Your task to perform on an android device: manage bookmarks in the chrome app Image 0: 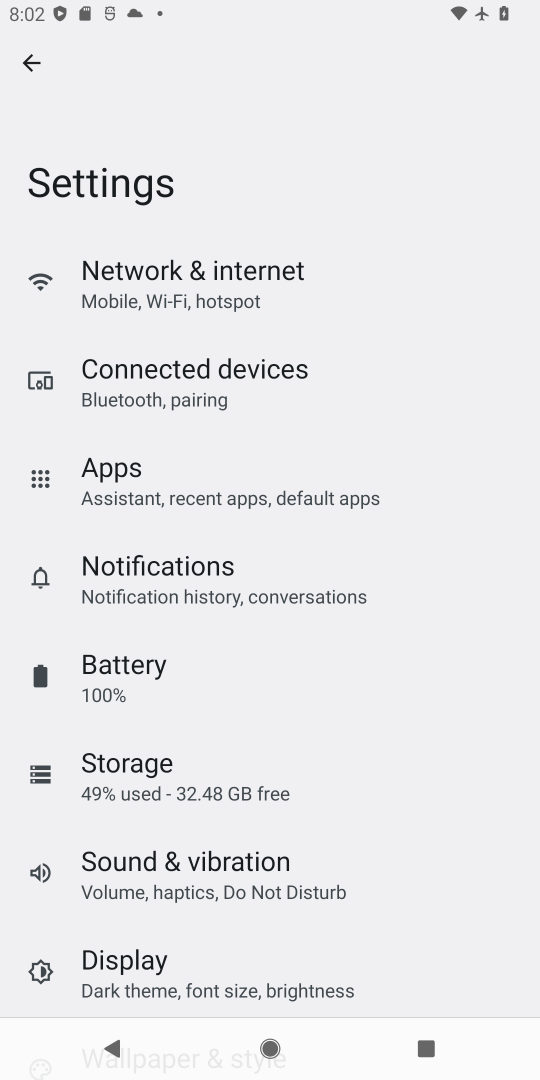
Step 0: press home button
Your task to perform on an android device: manage bookmarks in the chrome app Image 1: 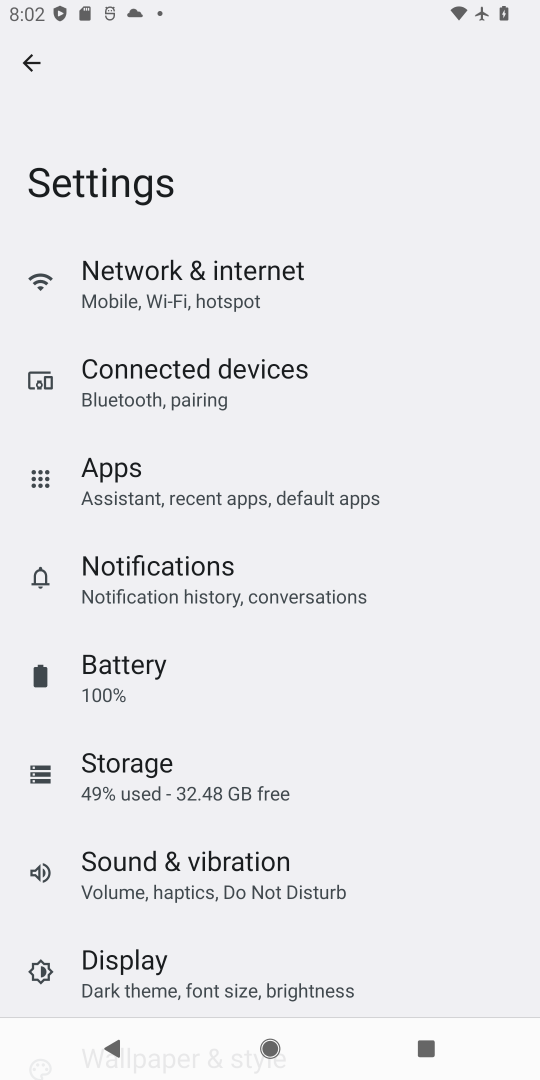
Step 1: press home button
Your task to perform on an android device: manage bookmarks in the chrome app Image 2: 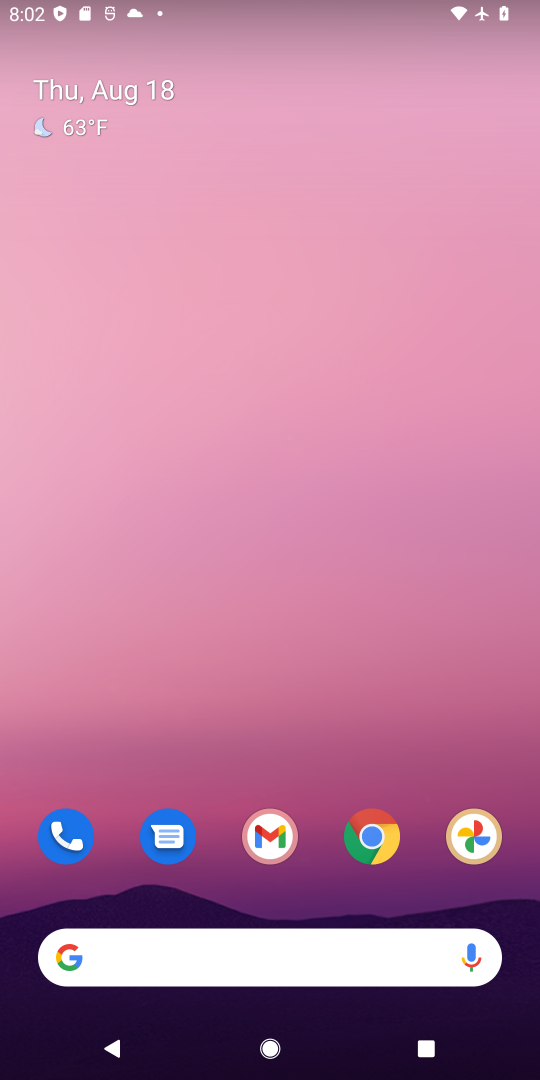
Step 2: drag from (307, 740) to (301, 4)
Your task to perform on an android device: manage bookmarks in the chrome app Image 3: 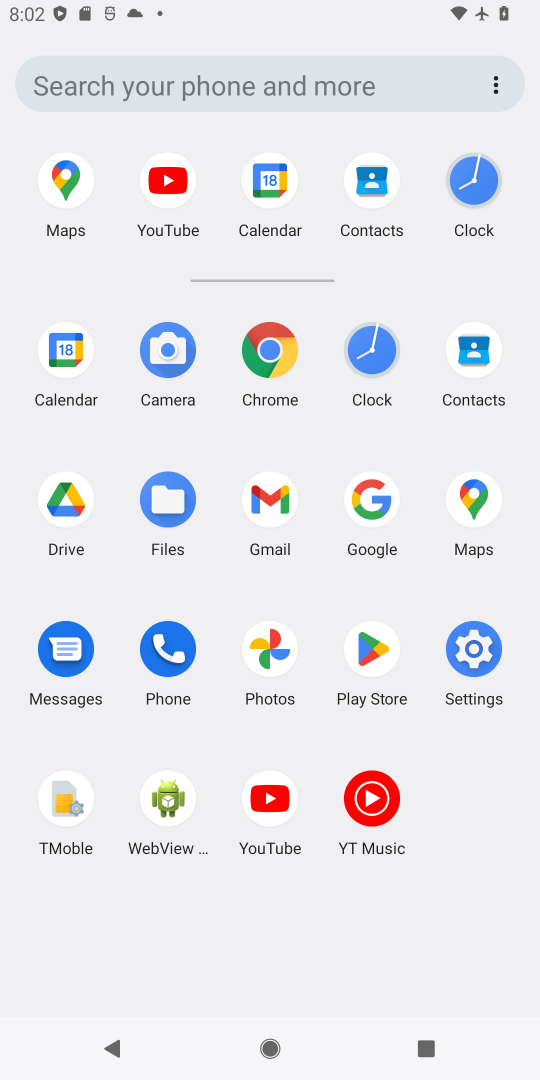
Step 3: click (268, 351)
Your task to perform on an android device: manage bookmarks in the chrome app Image 4: 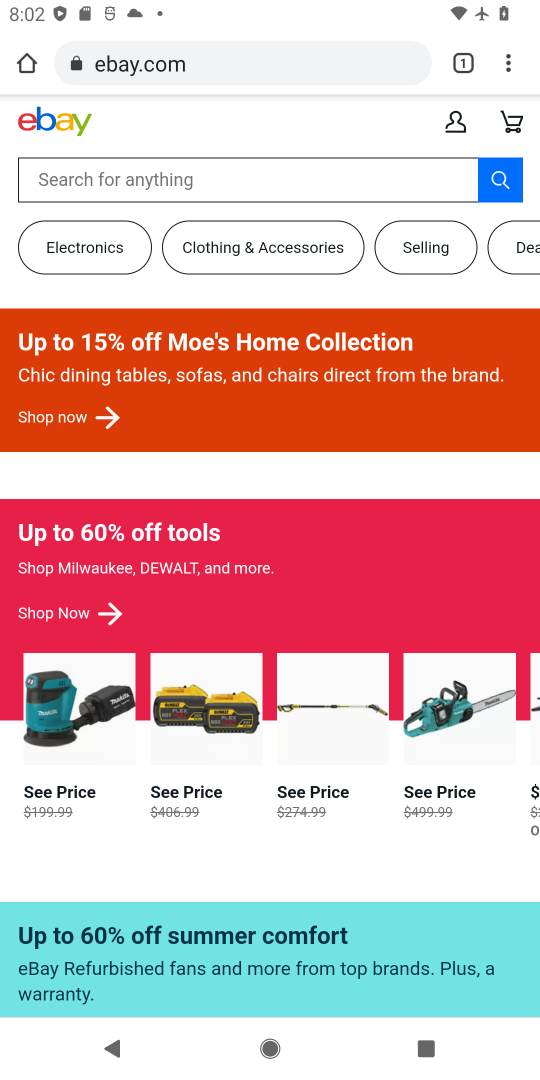
Step 4: drag from (509, 64) to (341, 434)
Your task to perform on an android device: manage bookmarks in the chrome app Image 5: 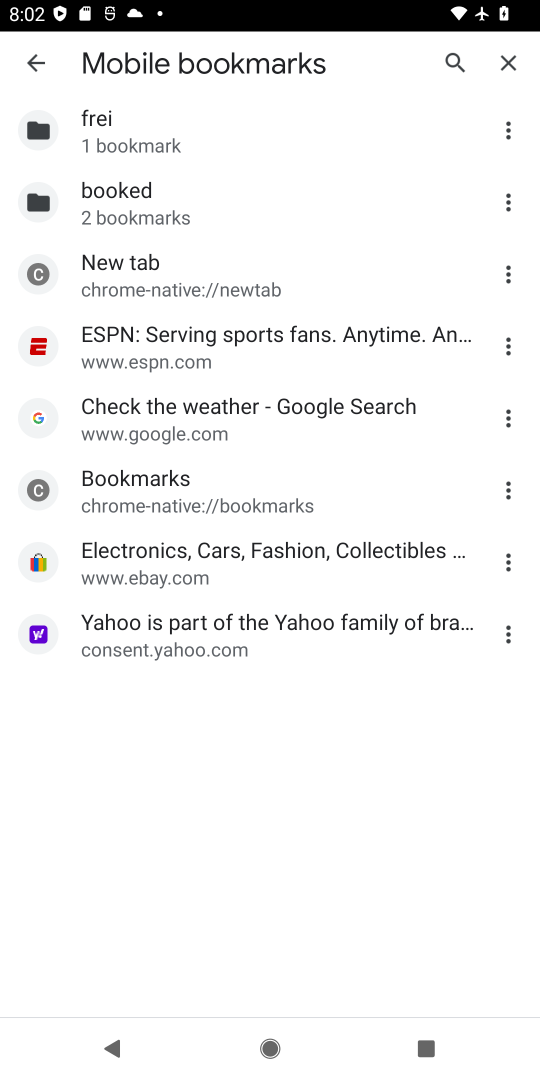
Step 5: click (509, 349)
Your task to perform on an android device: manage bookmarks in the chrome app Image 6: 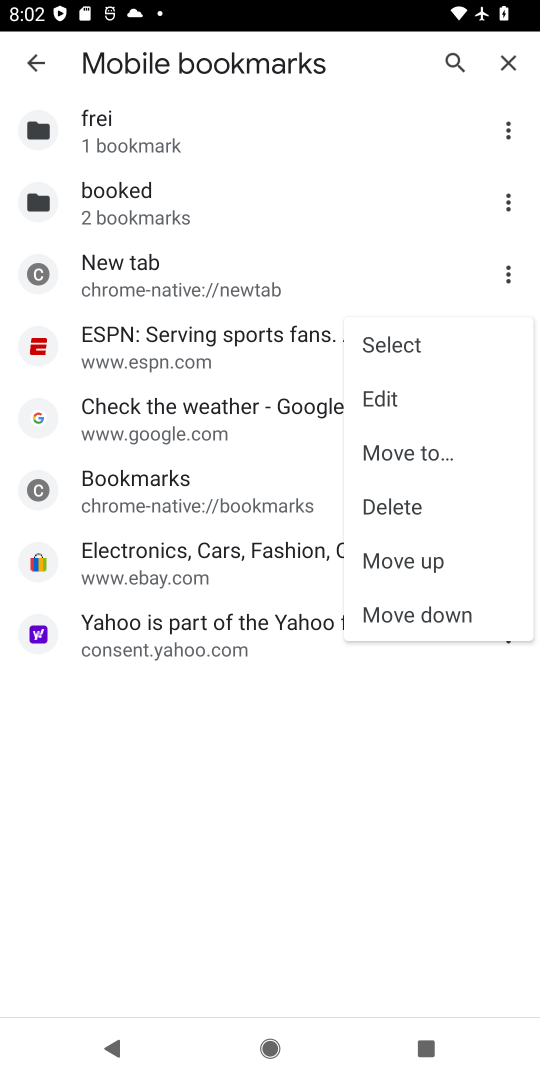
Step 6: click (393, 391)
Your task to perform on an android device: manage bookmarks in the chrome app Image 7: 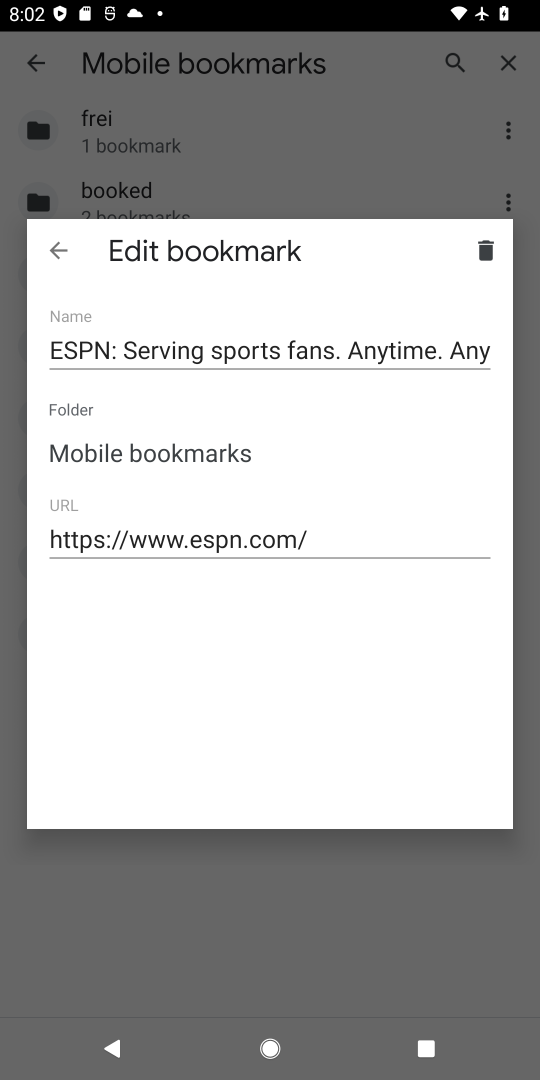
Step 7: click (169, 342)
Your task to perform on an android device: manage bookmarks in the chrome app Image 8: 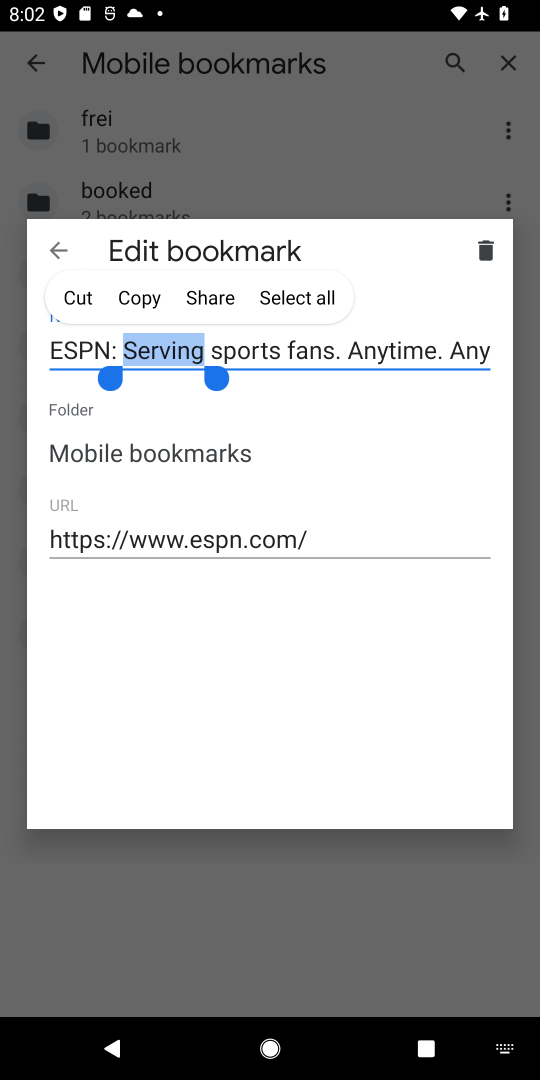
Step 8: click (81, 296)
Your task to perform on an android device: manage bookmarks in the chrome app Image 9: 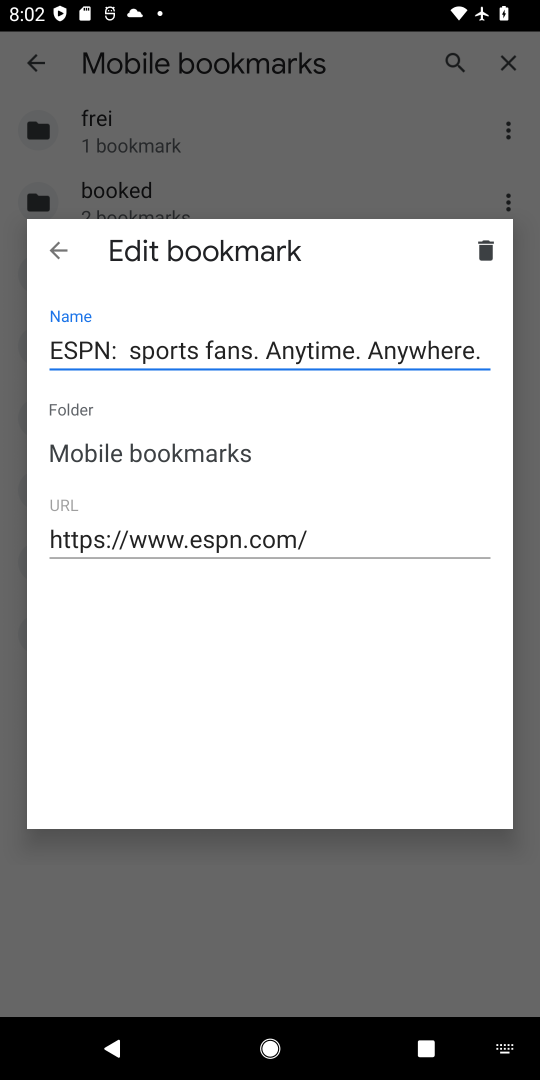
Step 9: click (50, 245)
Your task to perform on an android device: manage bookmarks in the chrome app Image 10: 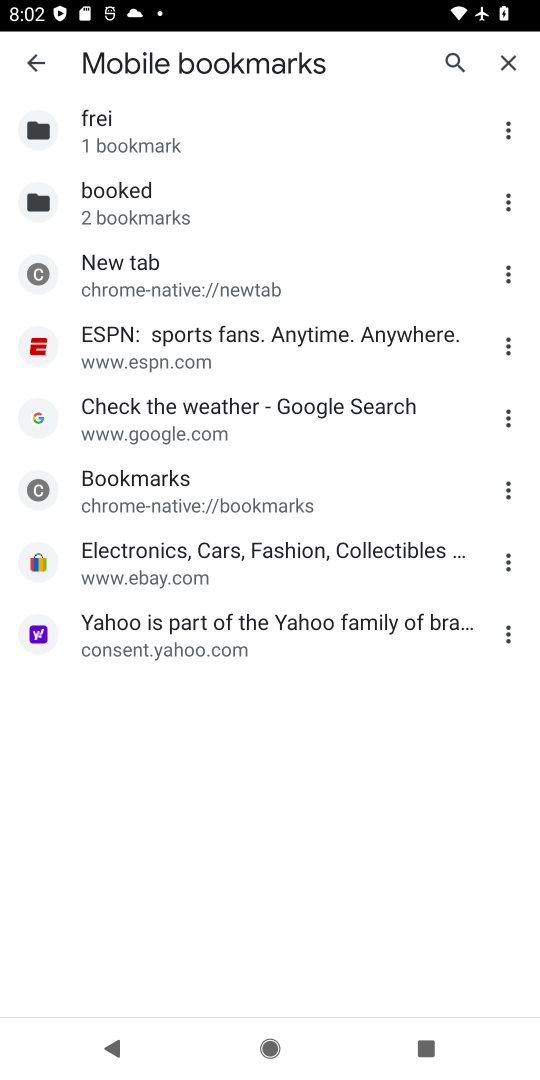
Step 10: task complete